Your task to perform on an android device: Search for vegetarian restaurants on Maps Image 0: 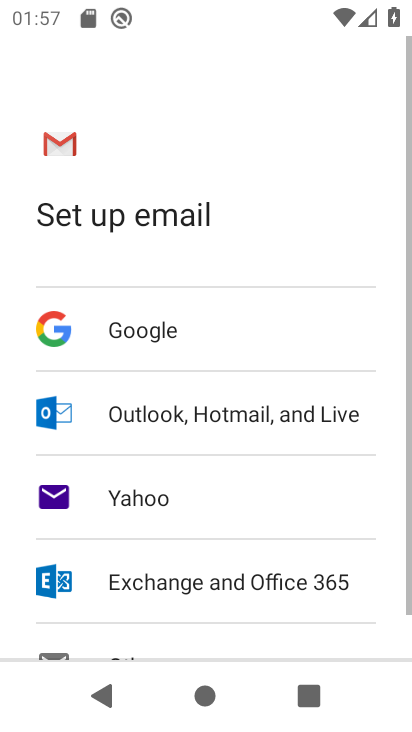
Step 0: drag from (255, 554) to (346, 196)
Your task to perform on an android device: Search for vegetarian restaurants on Maps Image 1: 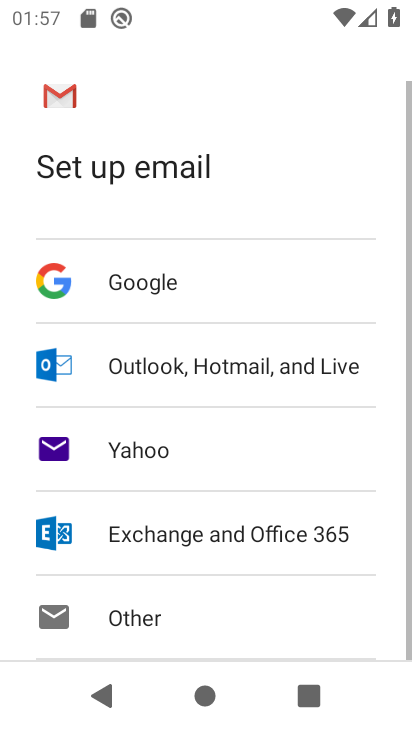
Step 1: press home button
Your task to perform on an android device: Search for vegetarian restaurants on Maps Image 2: 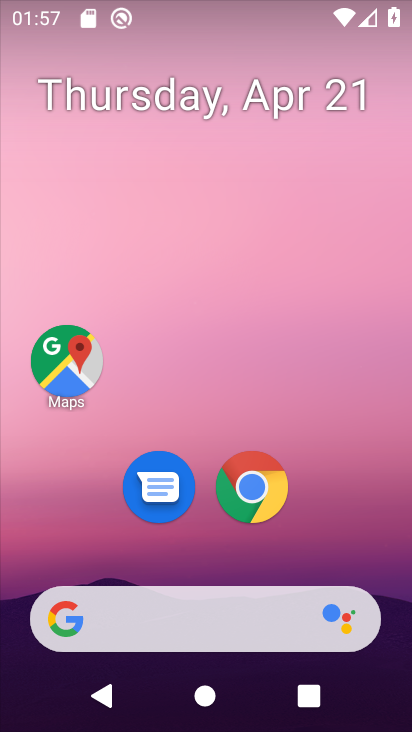
Step 2: drag from (187, 562) to (272, 154)
Your task to perform on an android device: Search for vegetarian restaurants on Maps Image 3: 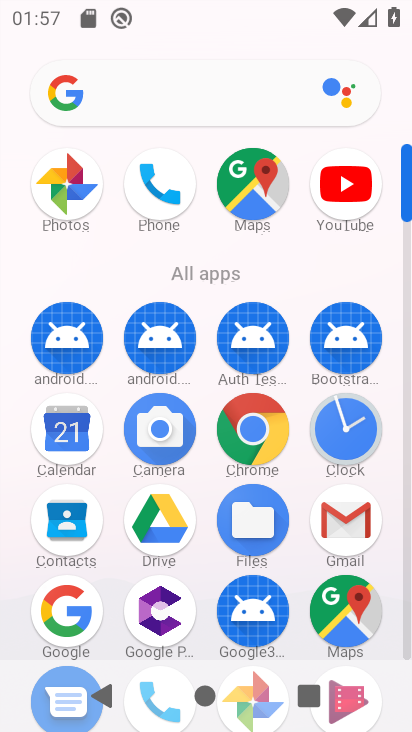
Step 3: click (351, 604)
Your task to perform on an android device: Search for vegetarian restaurants on Maps Image 4: 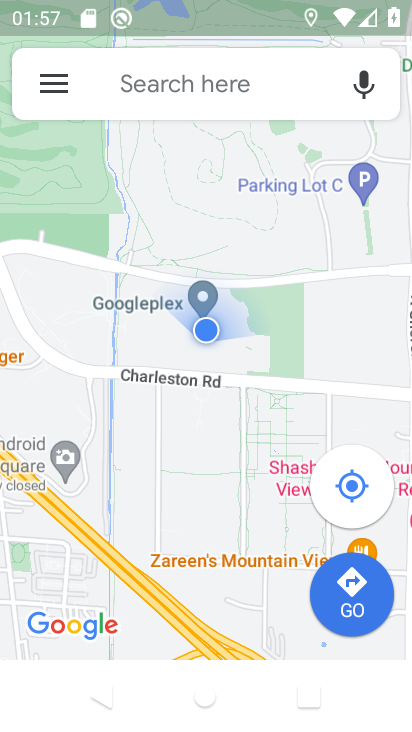
Step 4: click (161, 104)
Your task to perform on an android device: Search for vegetarian restaurants on Maps Image 5: 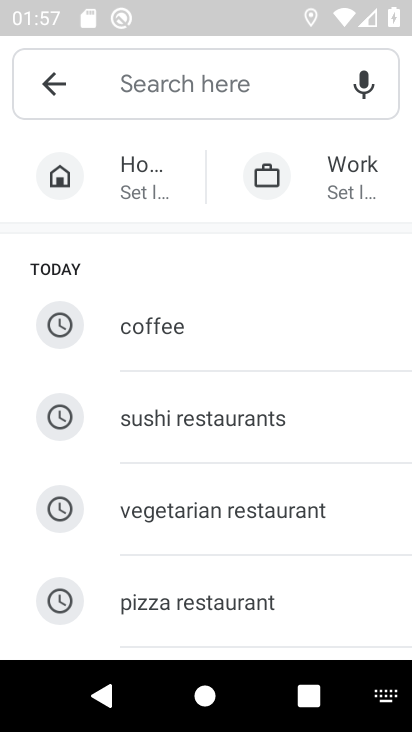
Step 5: click (197, 499)
Your task to perform on an android device: Search for vegetarian restaurants on Maps Image 6: 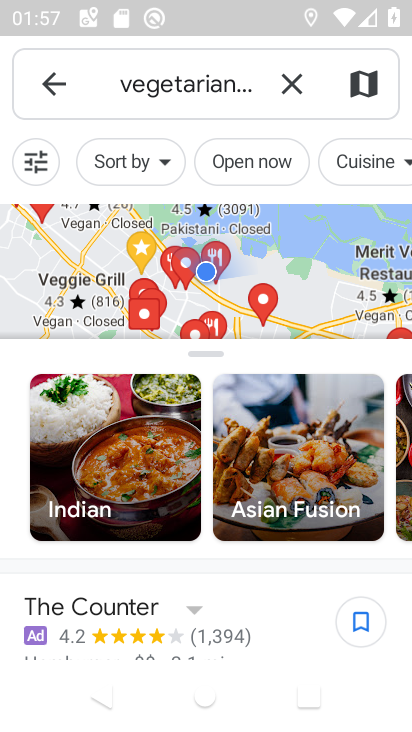
Step 6: task complete